Your task to perform on an android device: Open my contact list Image 0: 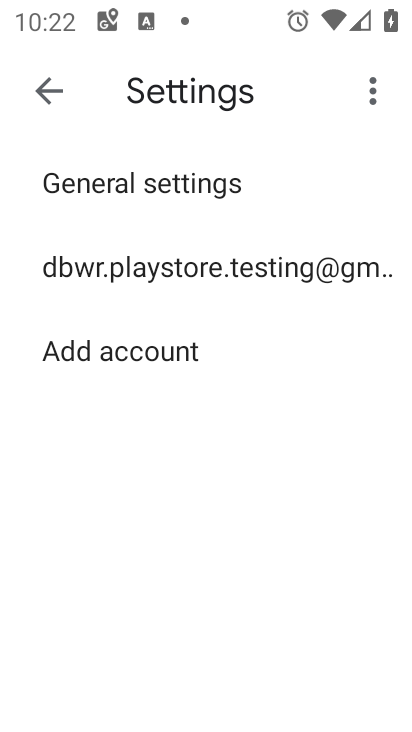
Step 0: press home button
Your task to perform on an android device: Open my contact list Image 1: 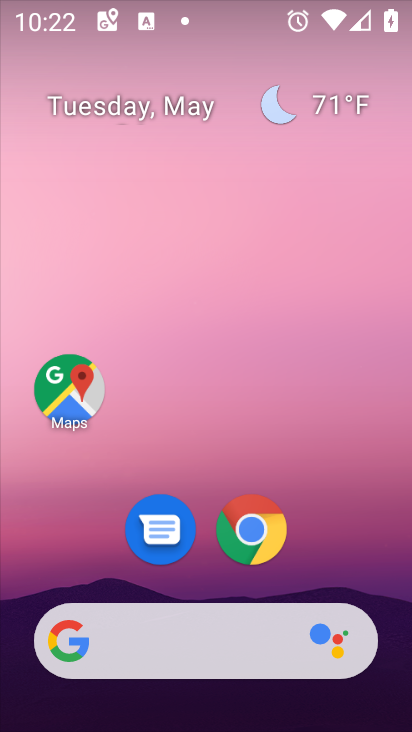
Step 1: drag from (282, 555) to (252, 299)
Your task to perform on an android device: Open my contact list Image 2: 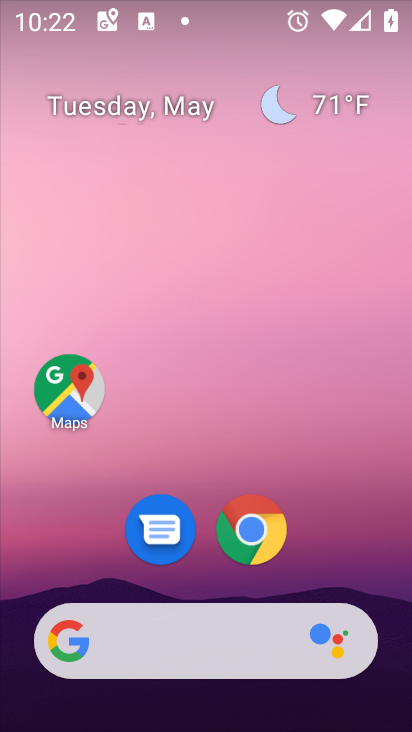
Step 2: drag from (177, 519) to (124, 130)
Your task to perform on an android device: Open my contact list Image 3: 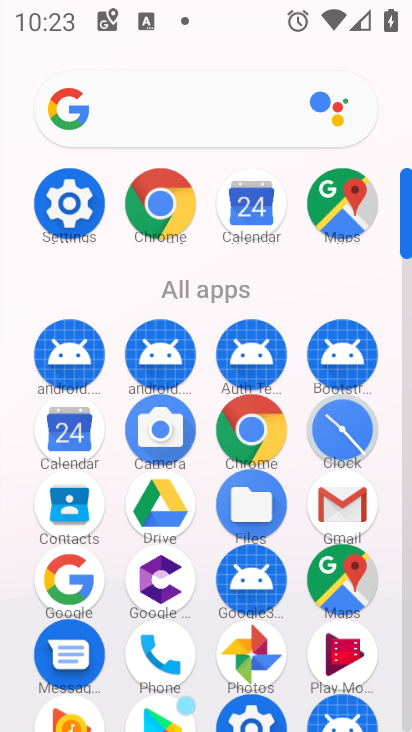
Step 3: drag from (166, 544) to (151, 374)
Your task to perform on an android device: Open my contact list Image 4: 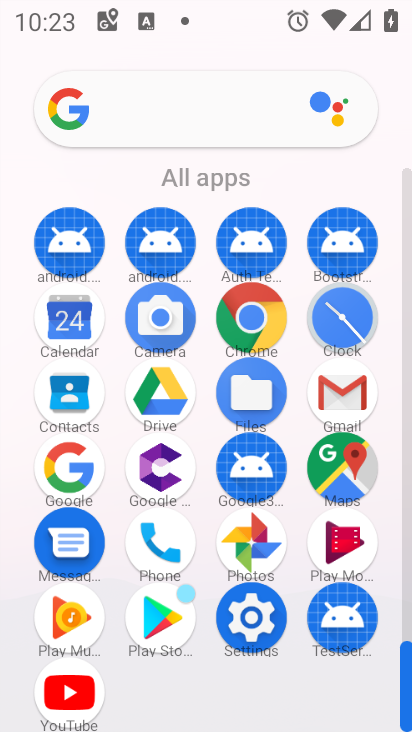
Step 4: click (68, 396)
Your task to perform on an android device: Open my contact list Image 5: 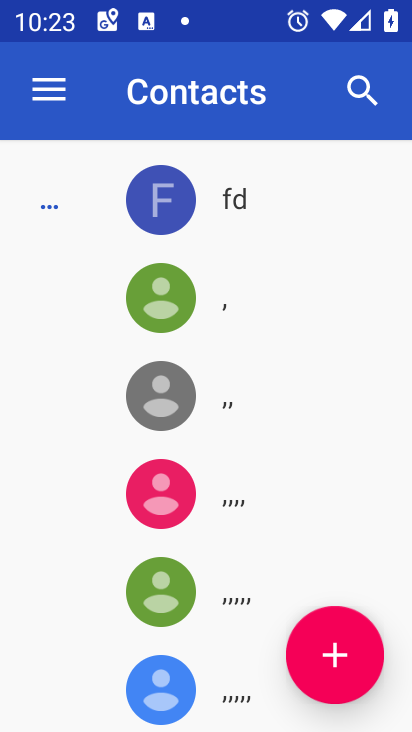
Step 5: task complete